Your task to perform on an android device: Go to eBay Image 0: 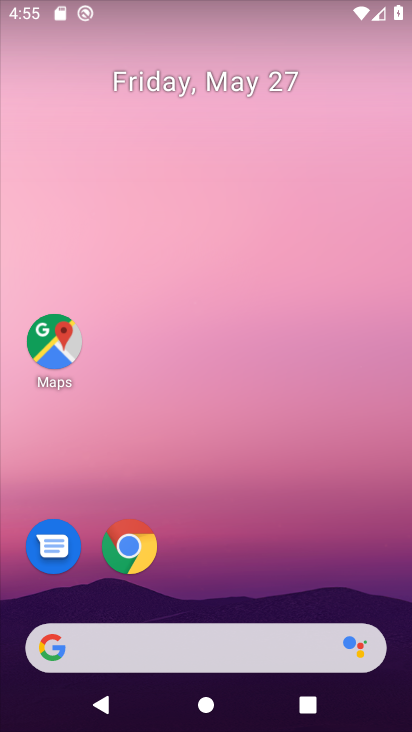
Step 0: drag from (276, 533) to (173, 18)
Your task to perform on an android device: Go to eBay Image 1: 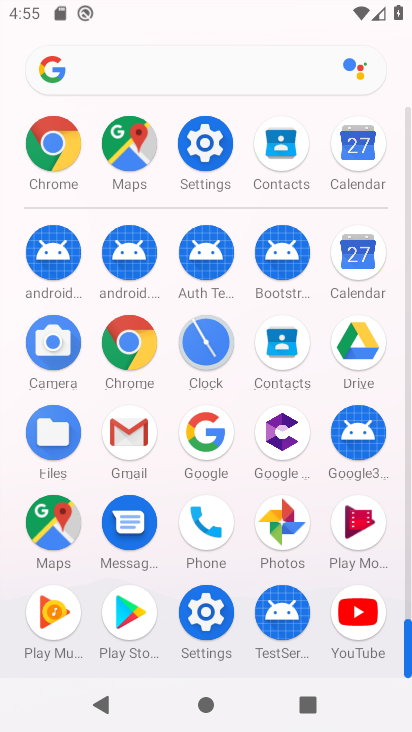
Step 1: drag from (7, 555) to (13, 219)
Your task to perform on an android device: Go to eBay Image 2: 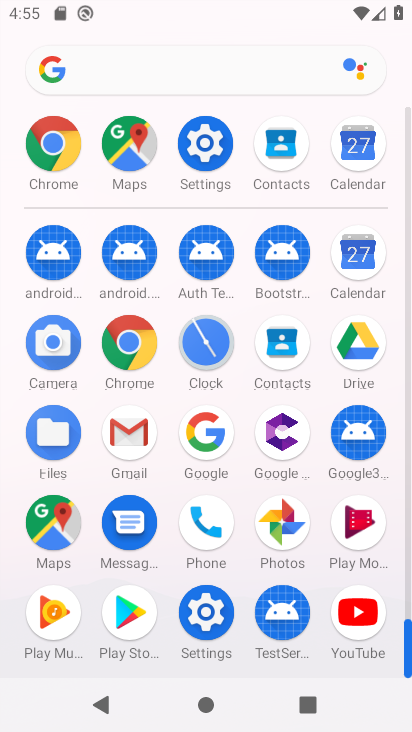
Step 2: click (125, 346)
Your task to perform on an android device: Go to eBay Image 3: 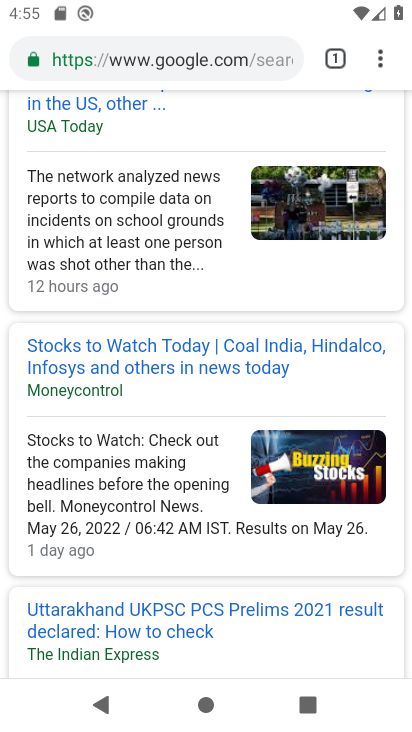
Step 3: click (134, 49)
Your task to perform on an android device: Go to eBay Image 4: 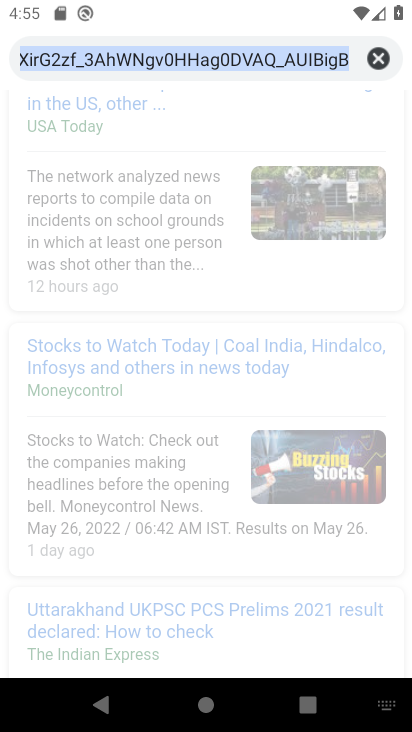
Step 4: click (379, 56)
Your task to perform on an android device: Go to eBay Image 5: 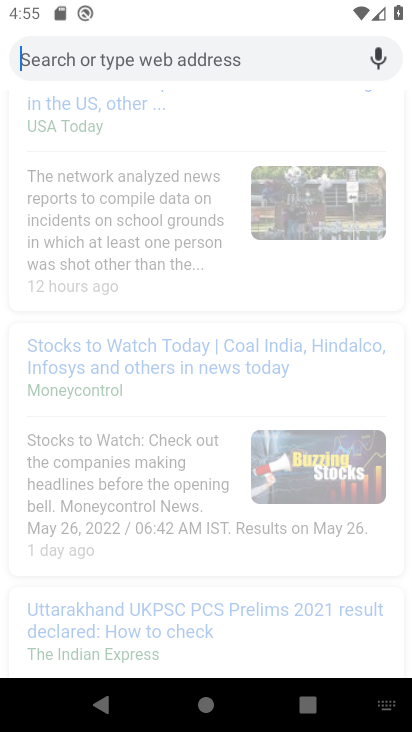
Step 5: type "eBay"
Your task to perform on an android device: Go to eBay Image 6: 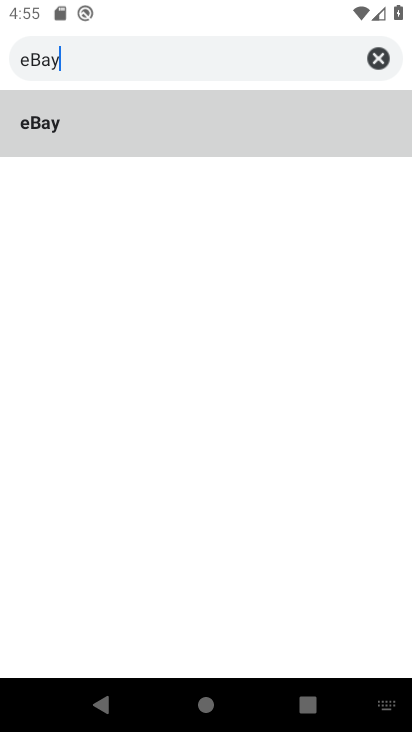
Step 6: type ""
Your task to perform on an android device: Go to eBay Image 7: 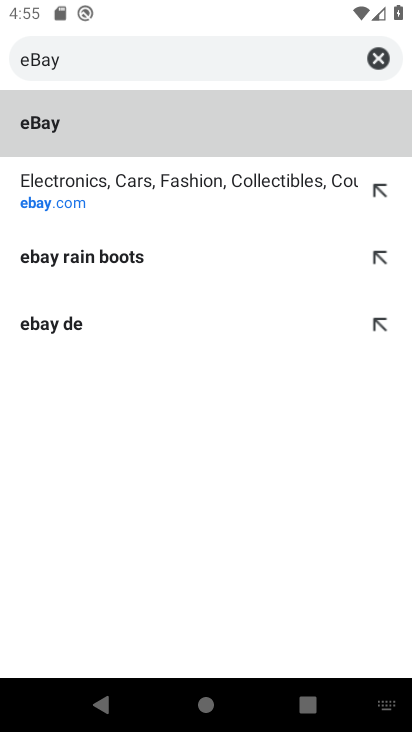
Step 7: click (82, 210)
Your task to perform on an android device: Go to eBay Image 8: 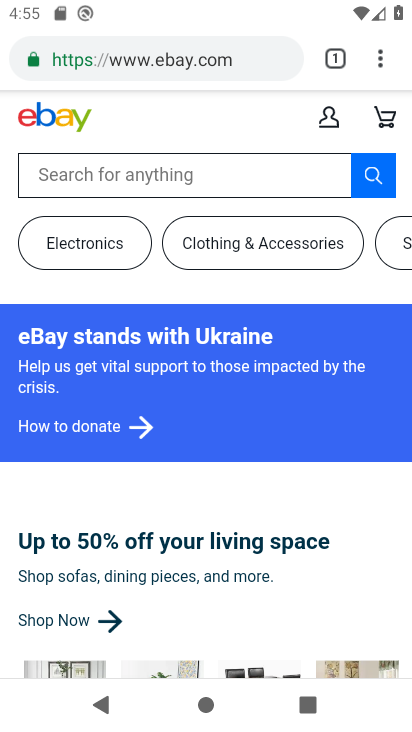
Step 8: task complete